Your task to perform on an android device: Open ESPN.com Image 0: 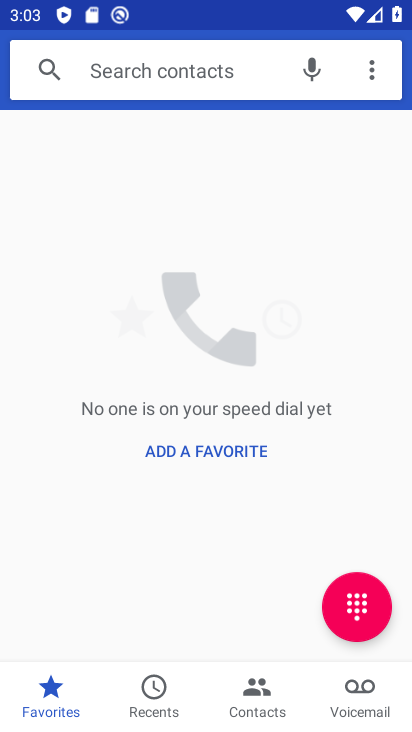
Step 0: press home button
Your task to perform on an android device: Open ESPN.com Image 1: 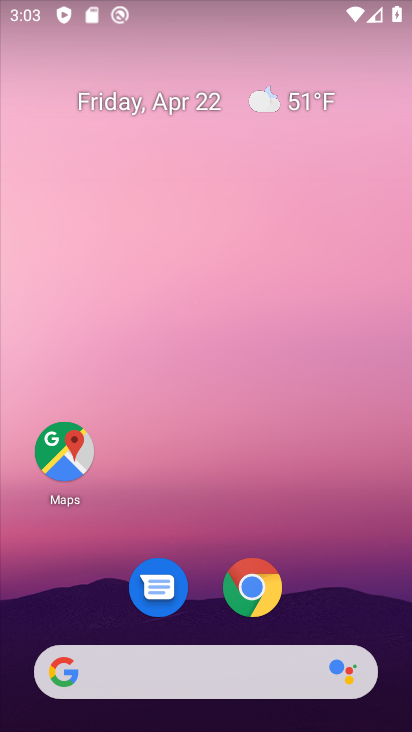
Step 1: click (241, 593)
Your task to perform on an android device: Open ESPN.com Image 2: 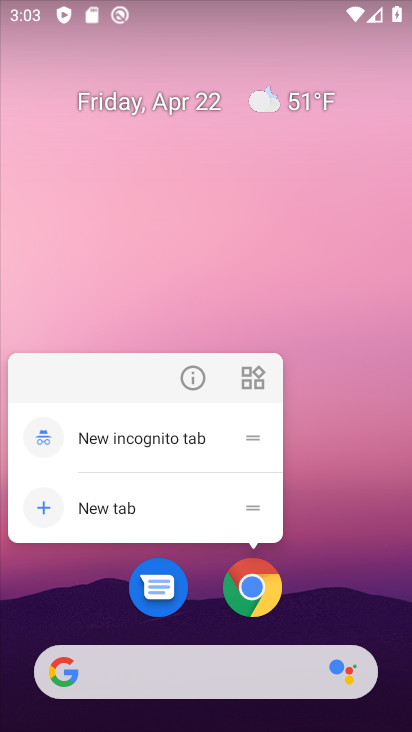
Step 2: click (196, 378)
Your task to perform on an android device: Open ESPN.com Image 3: 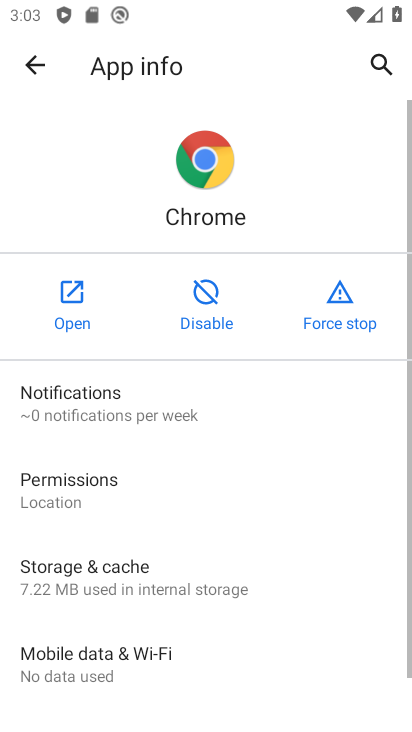
Step 3: click (78, 305)
Your task to perform on an android device: Open ESPN.com Image 4: 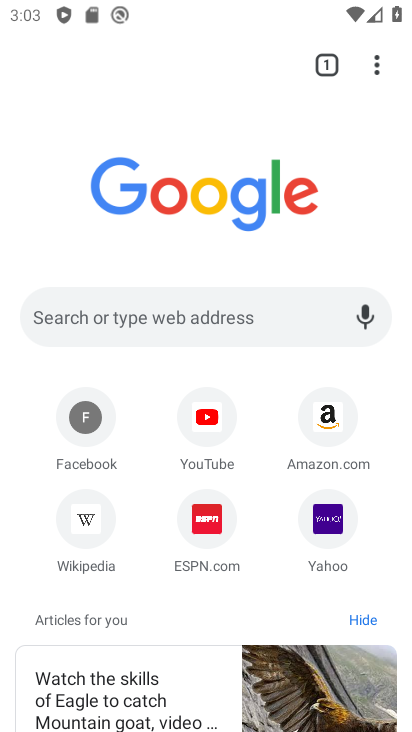
Step 4: click (200, 539)
Your task to perform on an android device: Open ESPN.com Image 5: 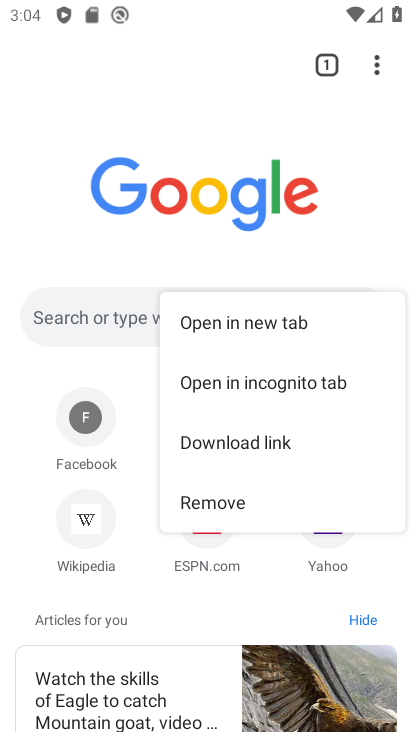
Step 5: click (363, 181)
Your task to perform on an android device: Open ESPN.com Image 6: 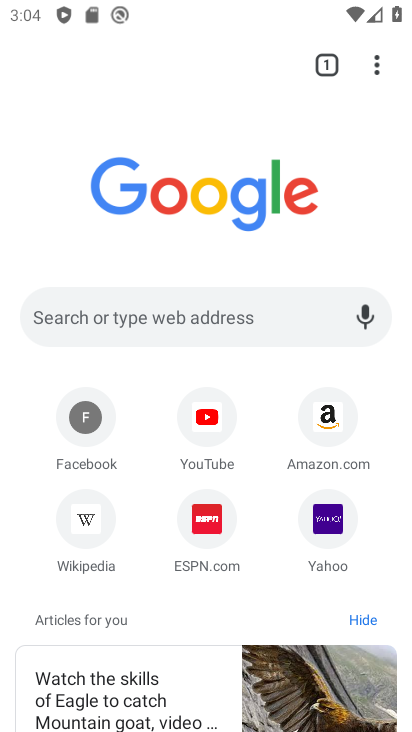
Step 6: click (199, 524)
Your task to perform on an android device: Open ESPN.com Image 7: 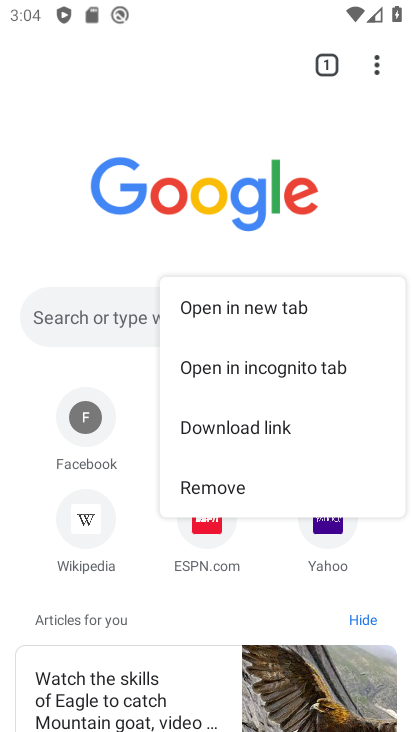
Step 7: click (201, 544)
Your task to perform on an android device: Open ESPN.com Image 8: 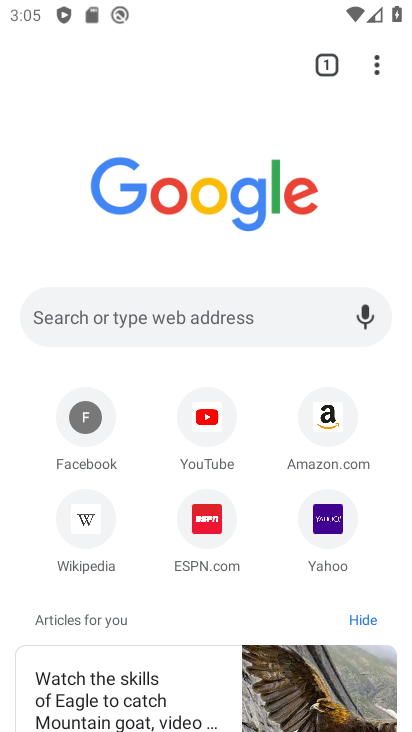
Step 8: click (198, 523)
Your task to perform on an android device: Open ESPN.com Image 9: 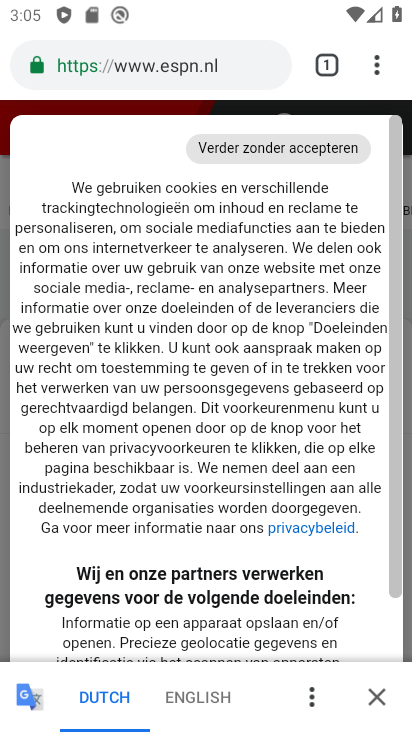
Step 9: task complete